Your task to perform on an android device: Turn on the flashlight Image 0: 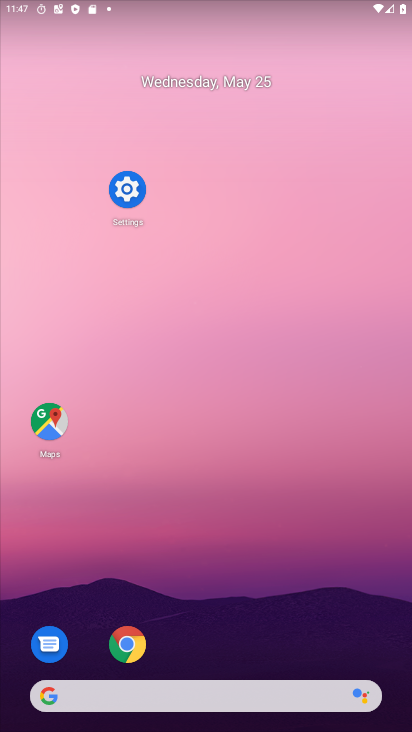
Step 0: drag from (231, 618) to (237, 78)
Your task to perform on an android device: Turn on the flashlight Image 1: 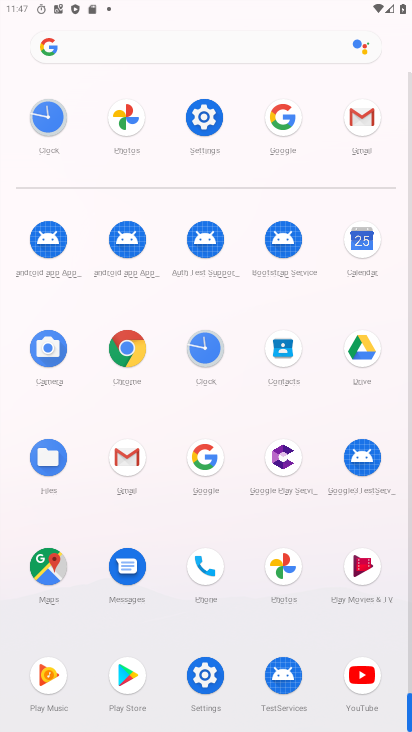
Step 1: click (206, 109)
Your task to perform on an android device: Turn on the flashlight Image 2: 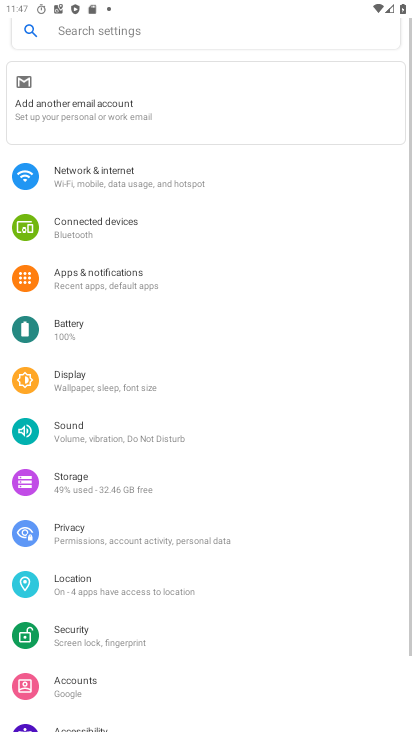
Step 2: click (175, 30)
Your task to perform on an android device: Turn on the flashlight Image 3: 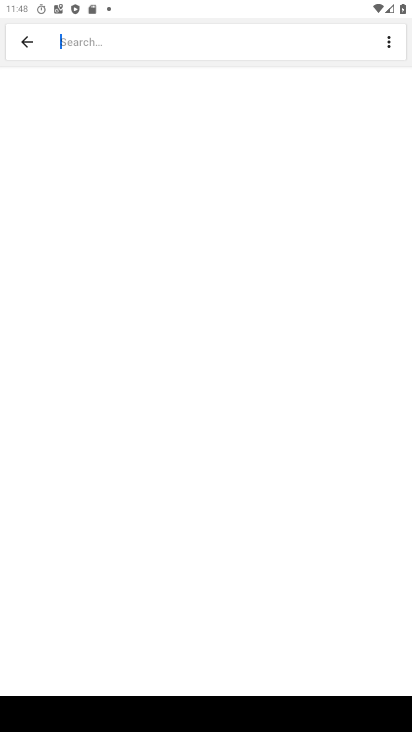
Step 3: type "flash"
Your task to perform on an android device: Turn on the flashlight Image 4: 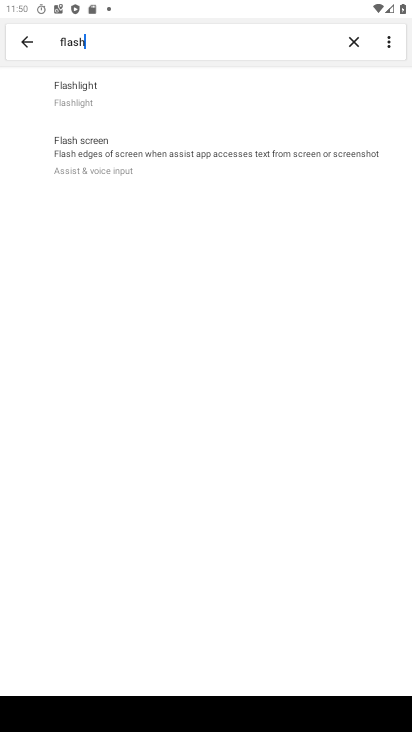
Step 4: task complete